Your task to perform on an android device: Search for vegetarian restaurants on Maps Image 0: 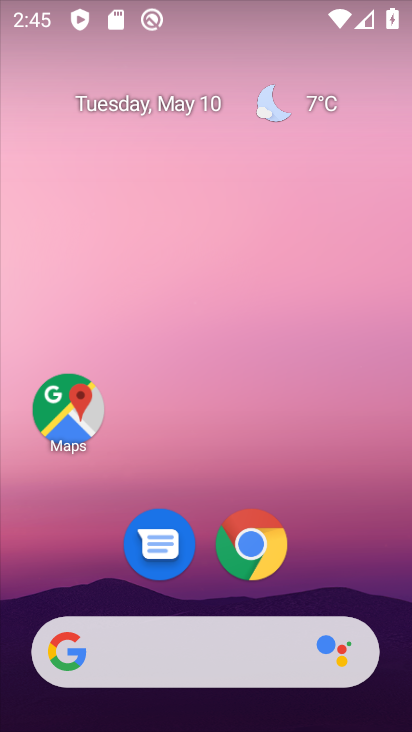
Step 0: drag from (358, 565) to (322, 245)
Your task to perform on an android device: Search for vegetarian restaurants on Maps Image 1: 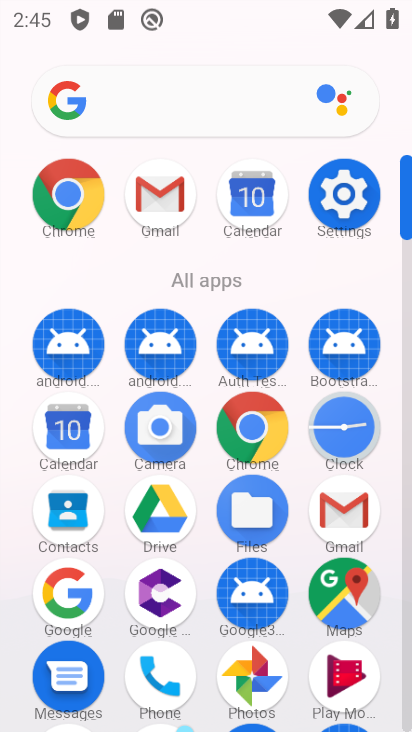
Step 1: click (327, 599)
Your task to perform on an android device: Search for vegetarian restaurants on Maps Image 2: 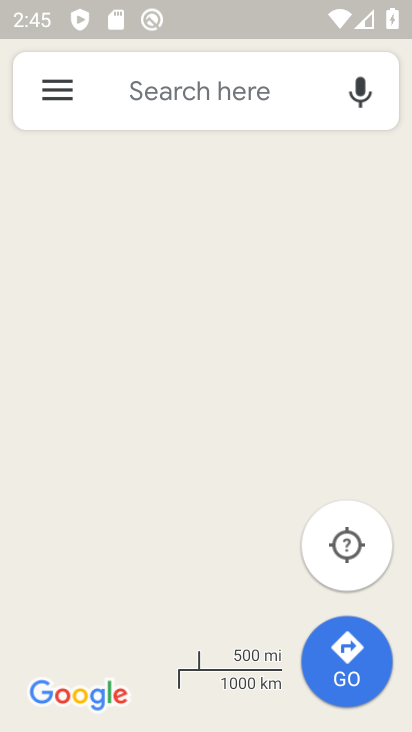
Step 2: click (116, 80)
Your task to perform on an android device: Search for vegetarian restaurants on Maps Image 3: 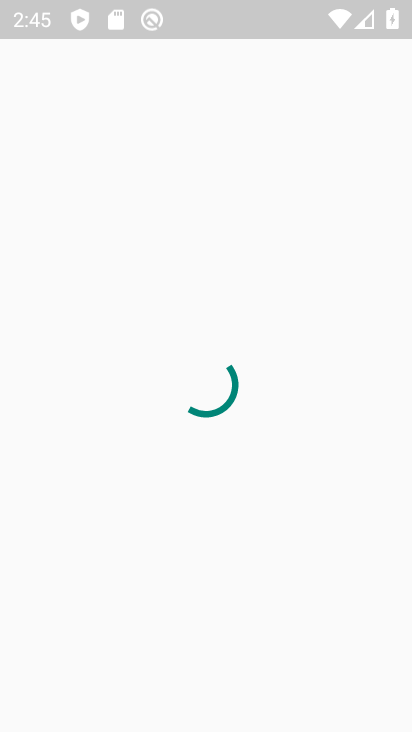
Step 3: click (219, 462)
Your task to perform on an android device: Search for vegetarian restaurants on Maps Image 4: 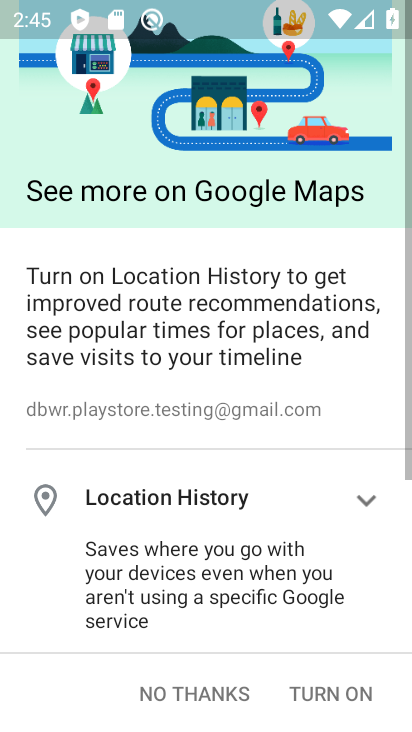
Step 4: click (219, 684)
Your task to perform on an android device: Search for vegetarian restaurants on Maps Image 5: 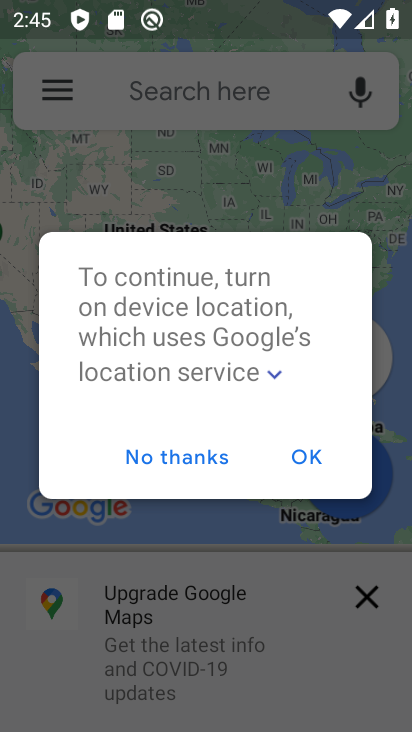
Step 5: click (143, 452)
Your task to perform on an android device: Search for vegetarian restaurants on Maps Image 6: 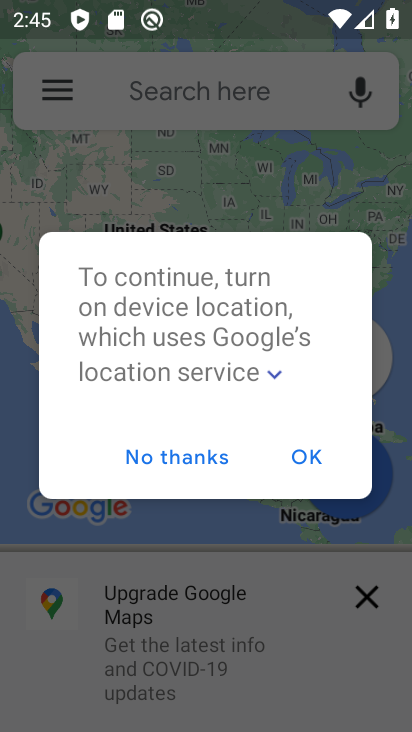
Step 6: click (164, 476)
Your task to perform on an android device: Search for vegetarian restaurants on Maps Image 7: 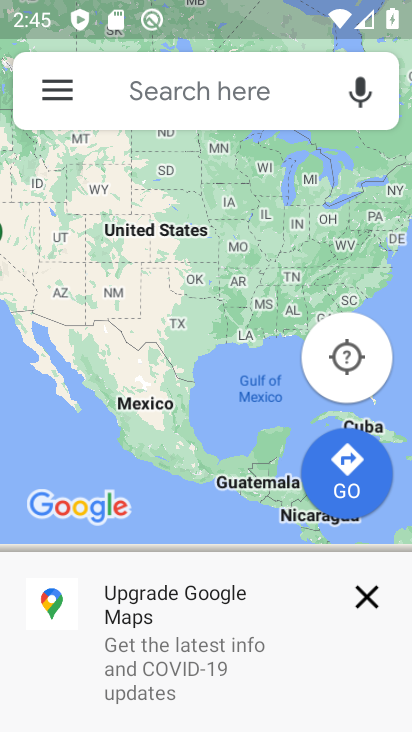
Step 7: click (230, 102)
Your task to perform on an android device: Search for vegetarian restaurants on Maps Image 8: 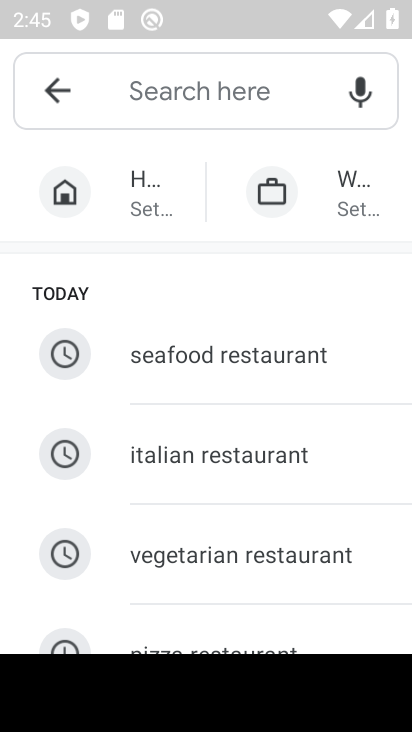
Step 8: click (262, 543)
Your task to perform on an android device: Search for vegetarian restaurants on Maps Image 9: 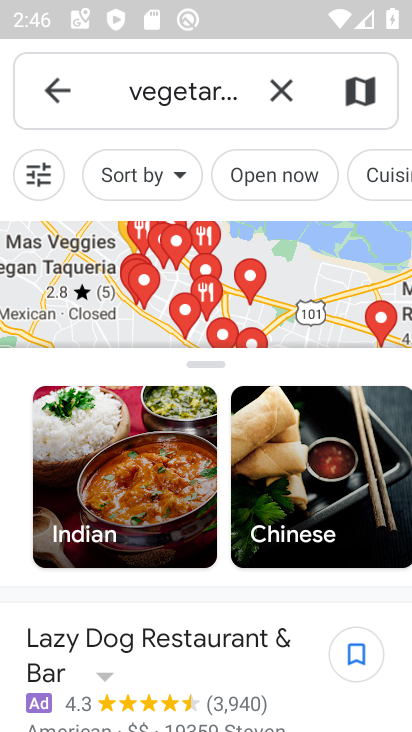
Step 9: task complete